Your task to perform on an android device: Open my contact list Image 0: 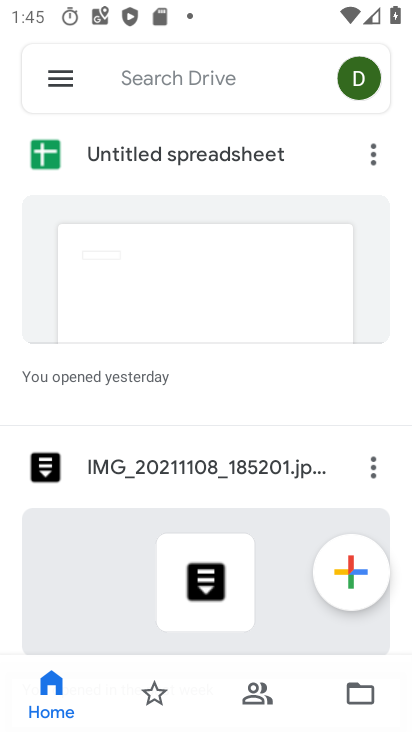
Step 0: press home button
Your task to perform on an android device: Open my contact list Image 1: 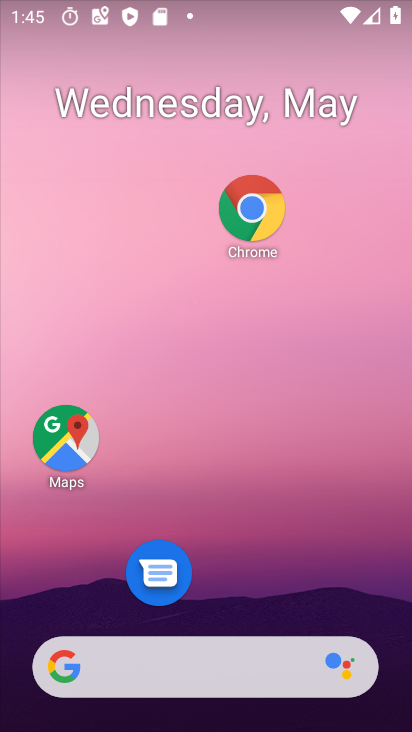
Step 1: drag from (203, 617) to (241, 23)
Your task to perform on an android device: Open my contact list Image 2: 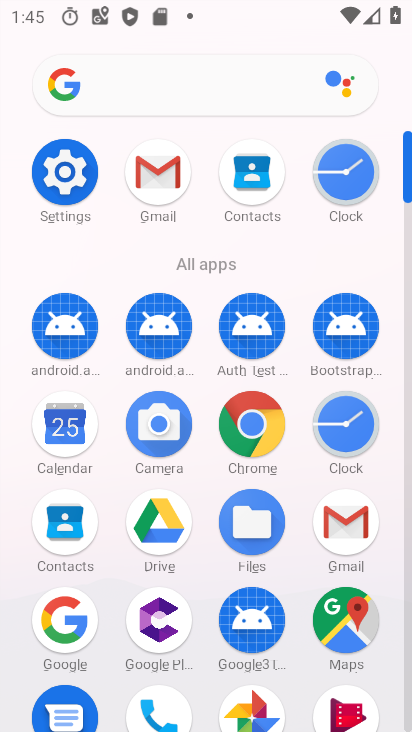
Step 2: click (81, 514)
Your task to perform on an android device: Open my contact list Image 3: 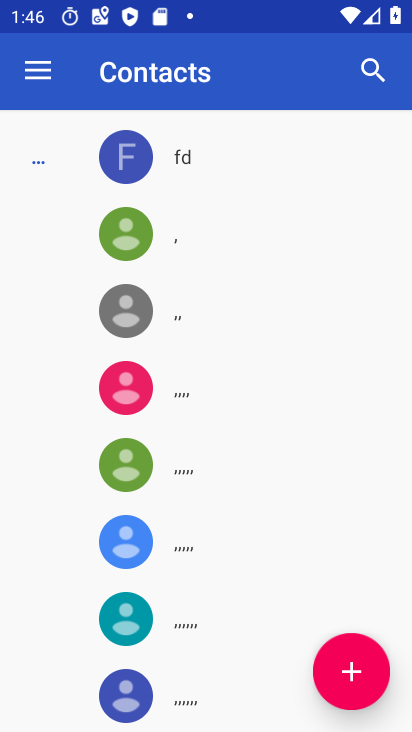
Step 3: task complete